Your task to perform on an android device: View the shopping cart on bestbuy. Add logitech g933 to the cart on bestbuy Image 0: 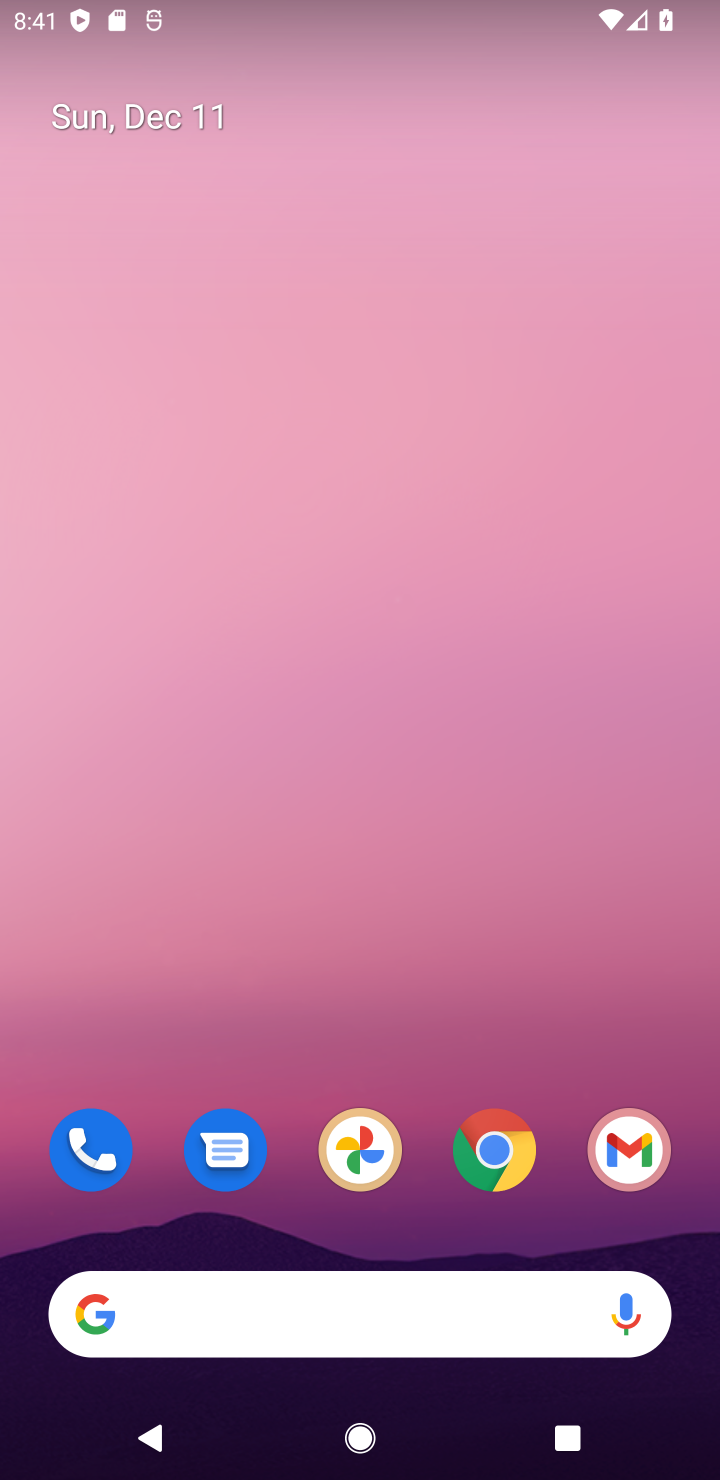
Step 0: click (495, 1149)
Your task to perform on an android device: View the shopping cart on bestbuy. Add logitech g933 to the cart on bestbuy Image 1: 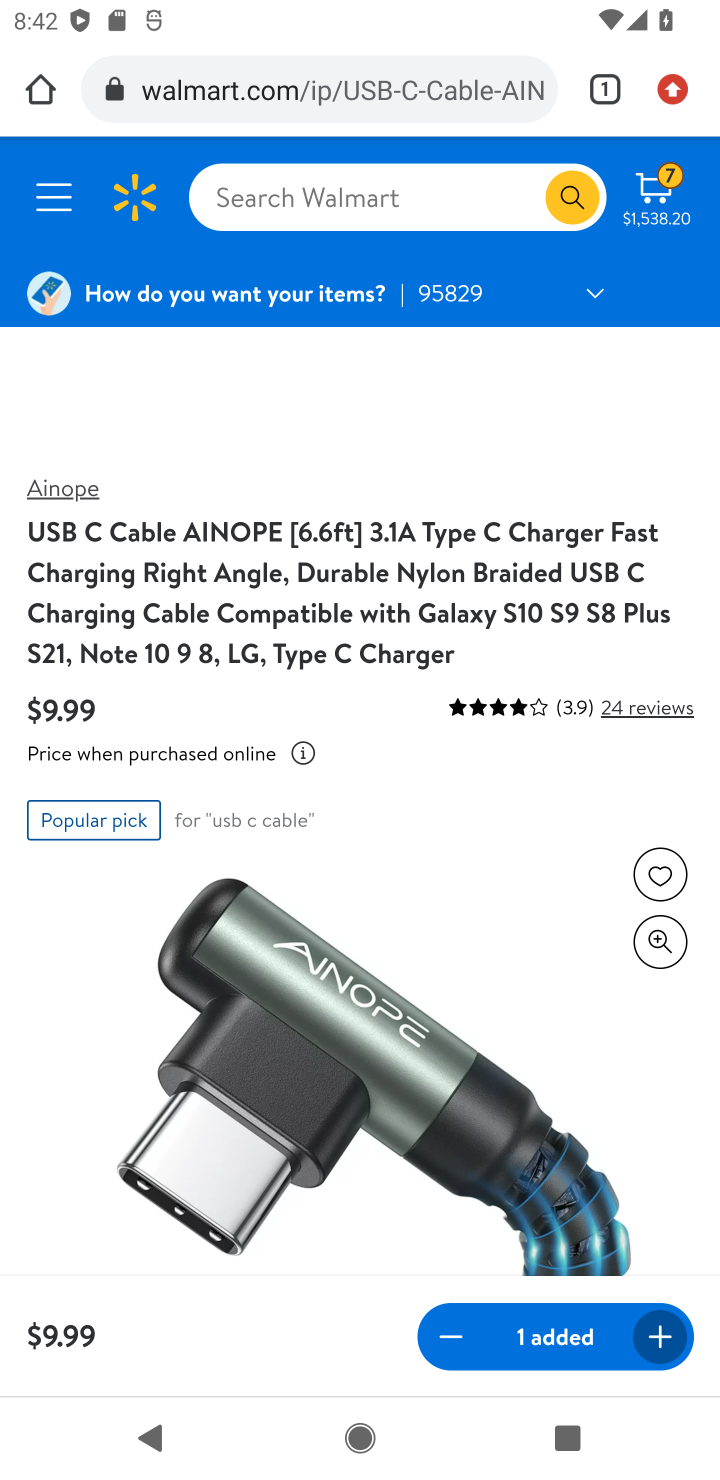
Step 1: click (426, 88)
Your task to perform on an android device: View the shopping cart on bestbuy. Add logitech g933 to the cart on bestbuy Image 2: 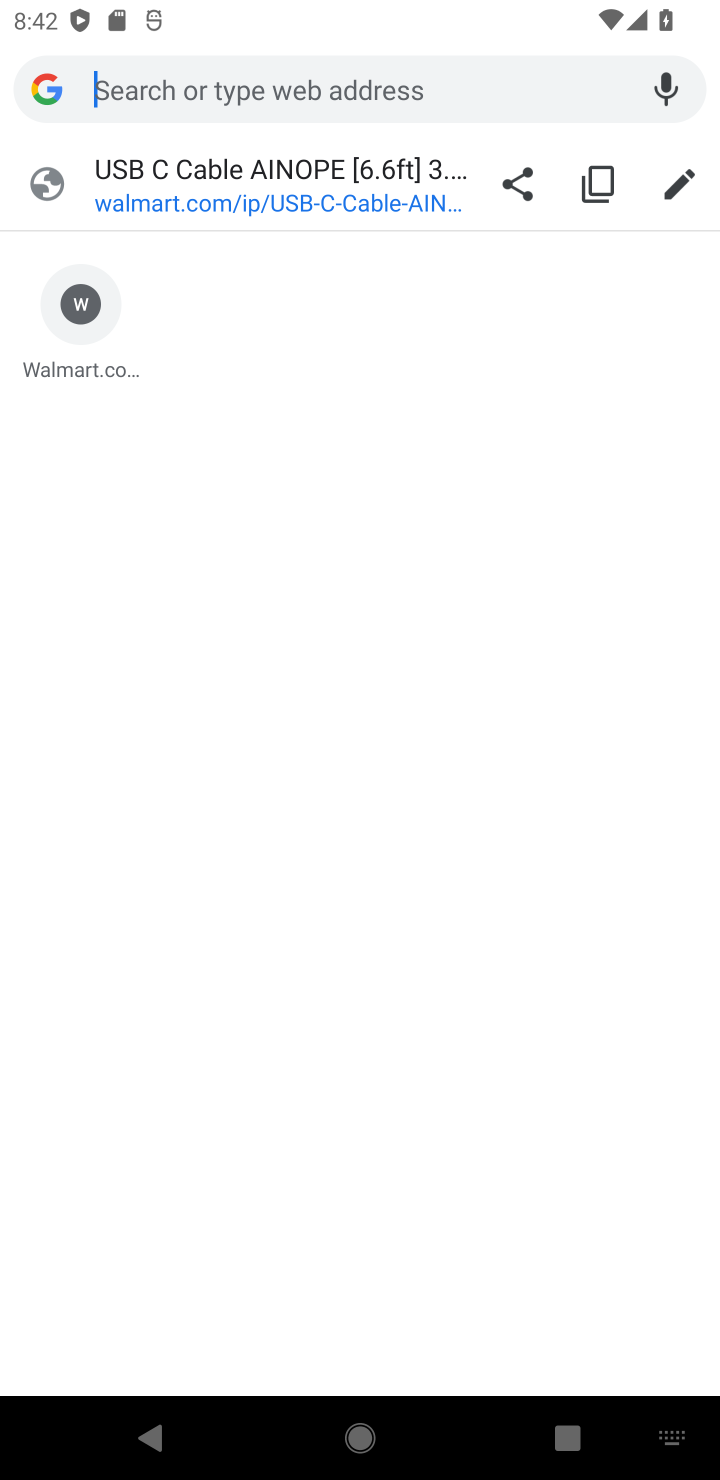
Step 2: type "bestbuy"
Your task to perform on an android device: View the shopping cart on bestbuy. Add logitech g933 to the cart on bestbuy Image 3: 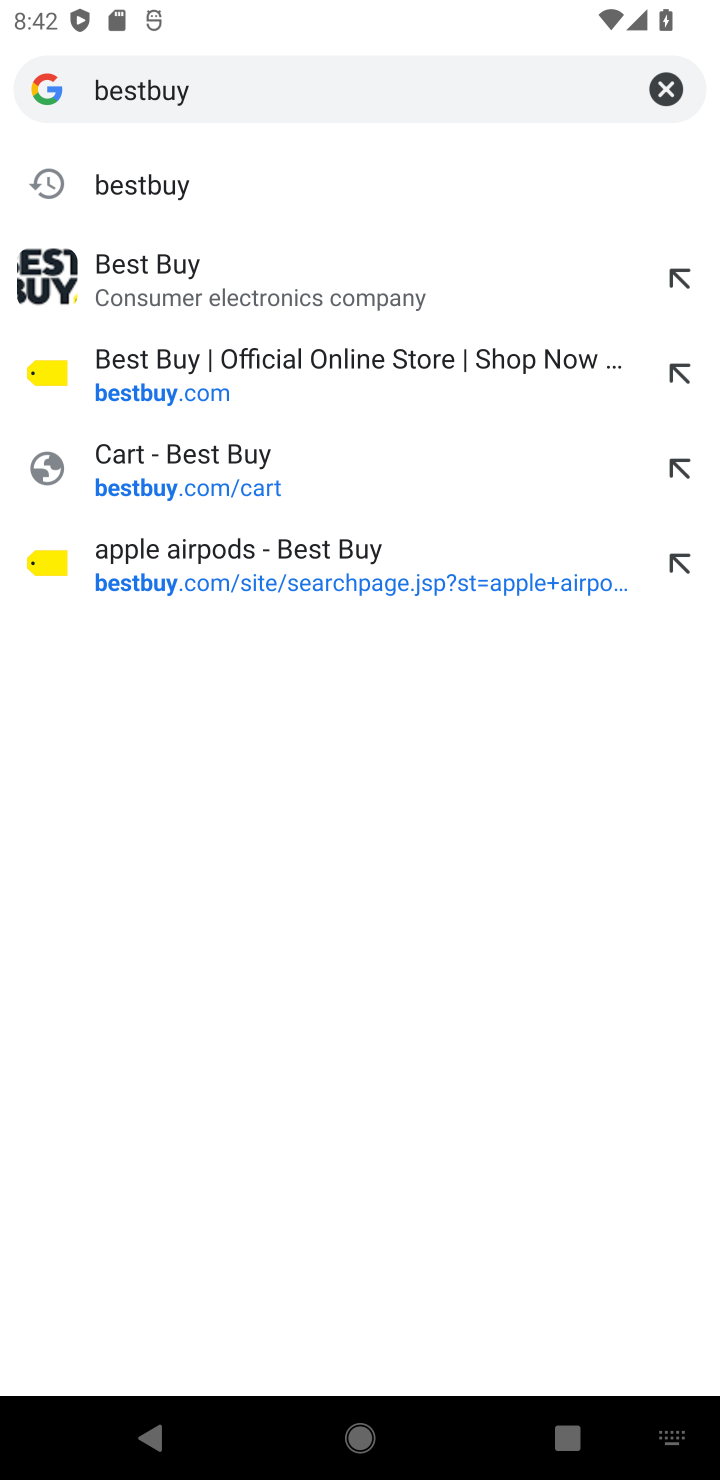
Step 3: click (163, 185)
Your task to perform on an android device: View the shopping cart on bestbuy. Add logitech g933 to the cart on bestbuy Image 4: 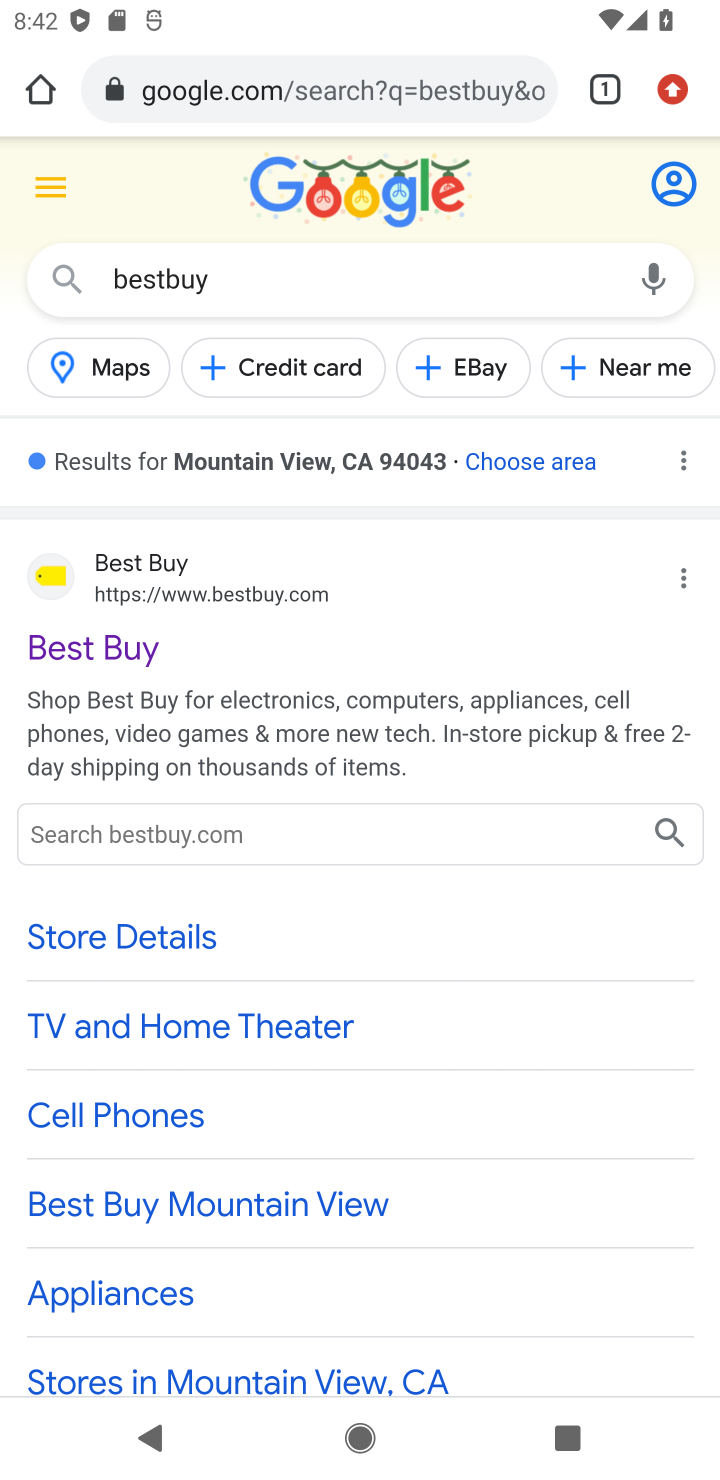
Step 4: click (126, 645)
Your task to perform on an android device: View the shopping cart on bestbuy. Add logitech g933 to the cart on bestbuy Image 5: 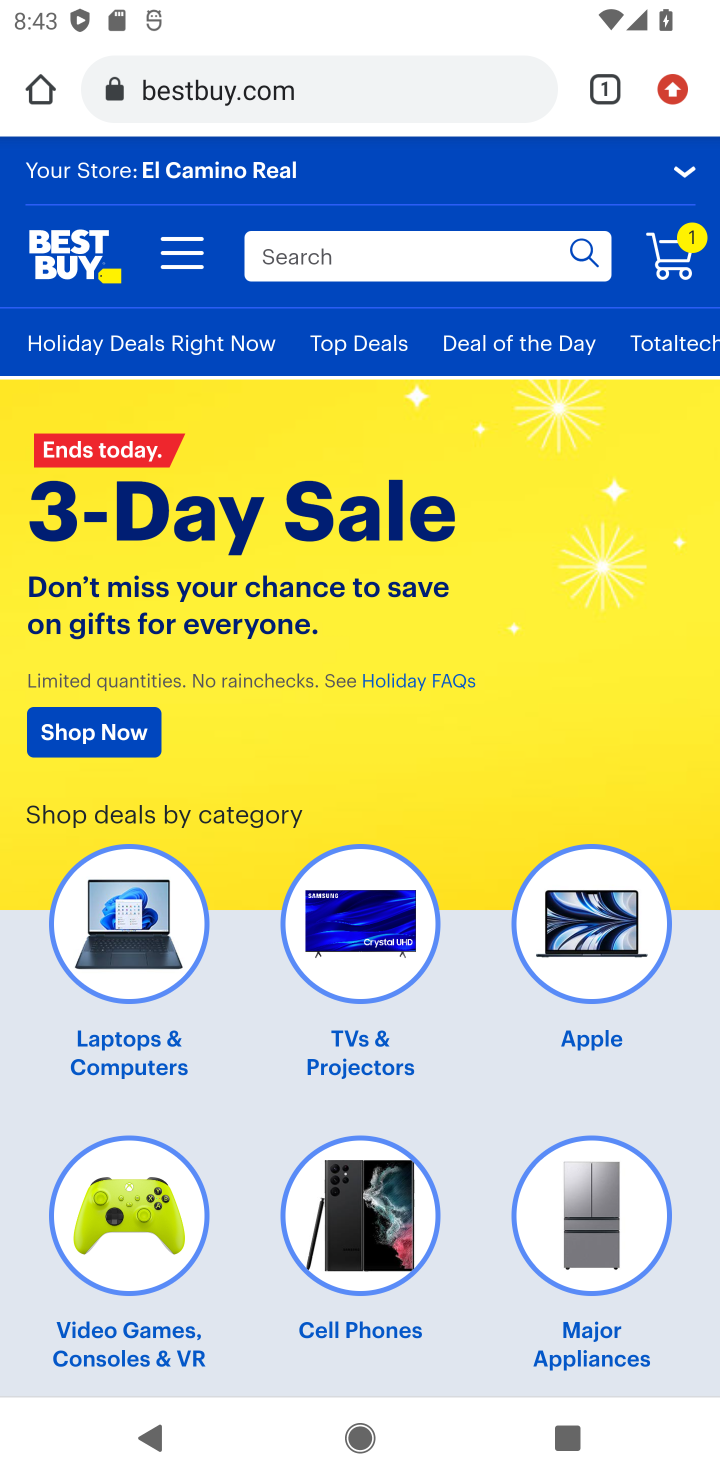
Step 5: click (672, 262)
Your task to perform on an android device: View the shopping cart on bestbuy. Add logitech g933 to the cart on bestbuy Image 6: 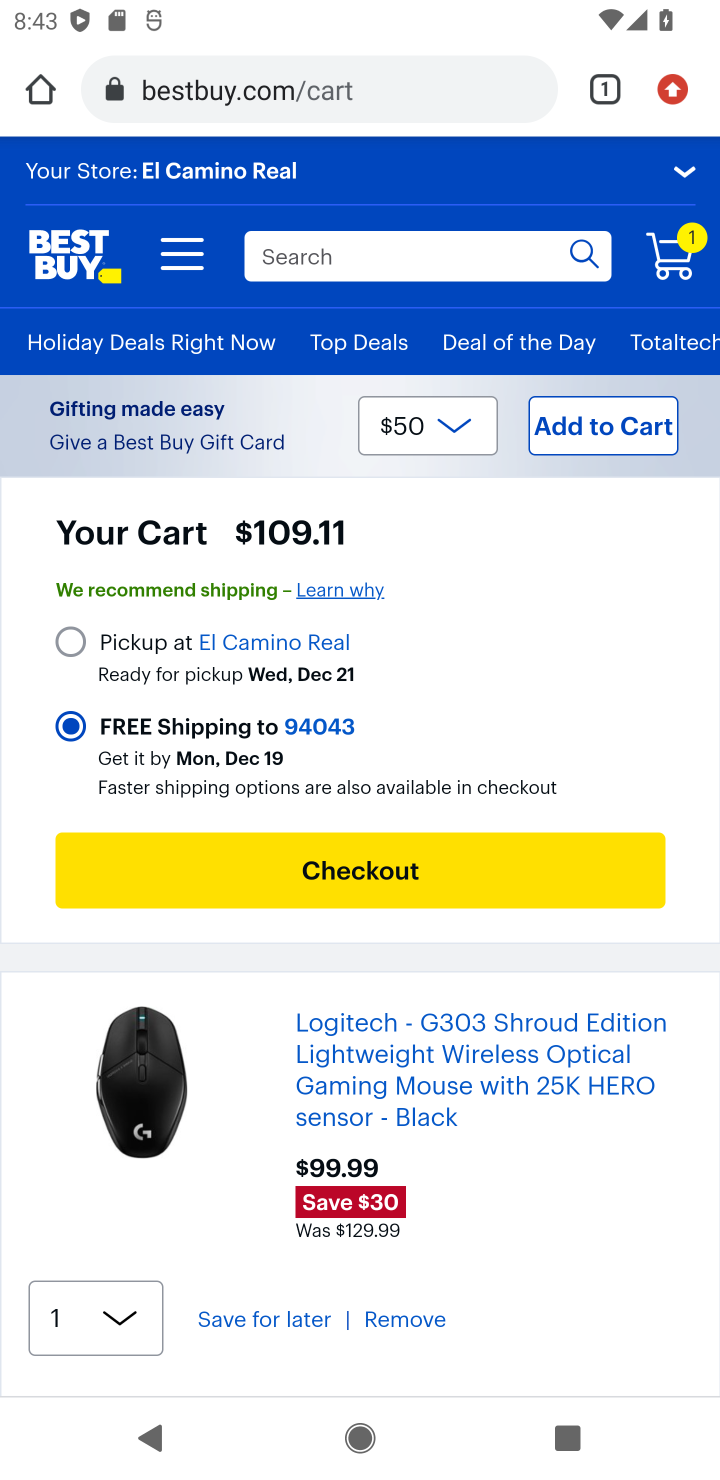
Step 6: click (444, 257)
Your task to perform on an android device: View the shopping cart on bestbuy. Add logitech g933 to the cart on bestbuy Image 7: 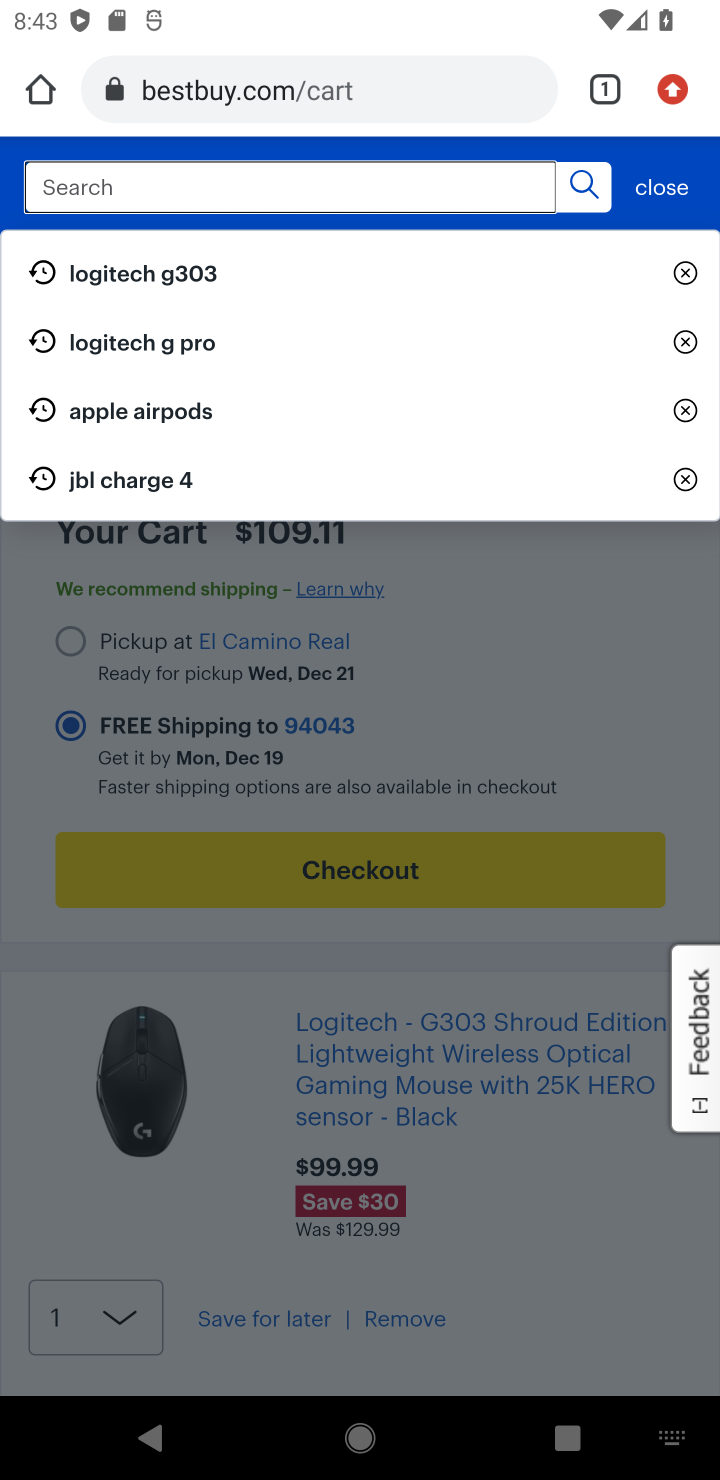
Step 7: type "logitech g933"
Your task to perform on an android device: View the shopping cart on bestbuy. Add logitech g933 to the cart on bestbuy Image 8: 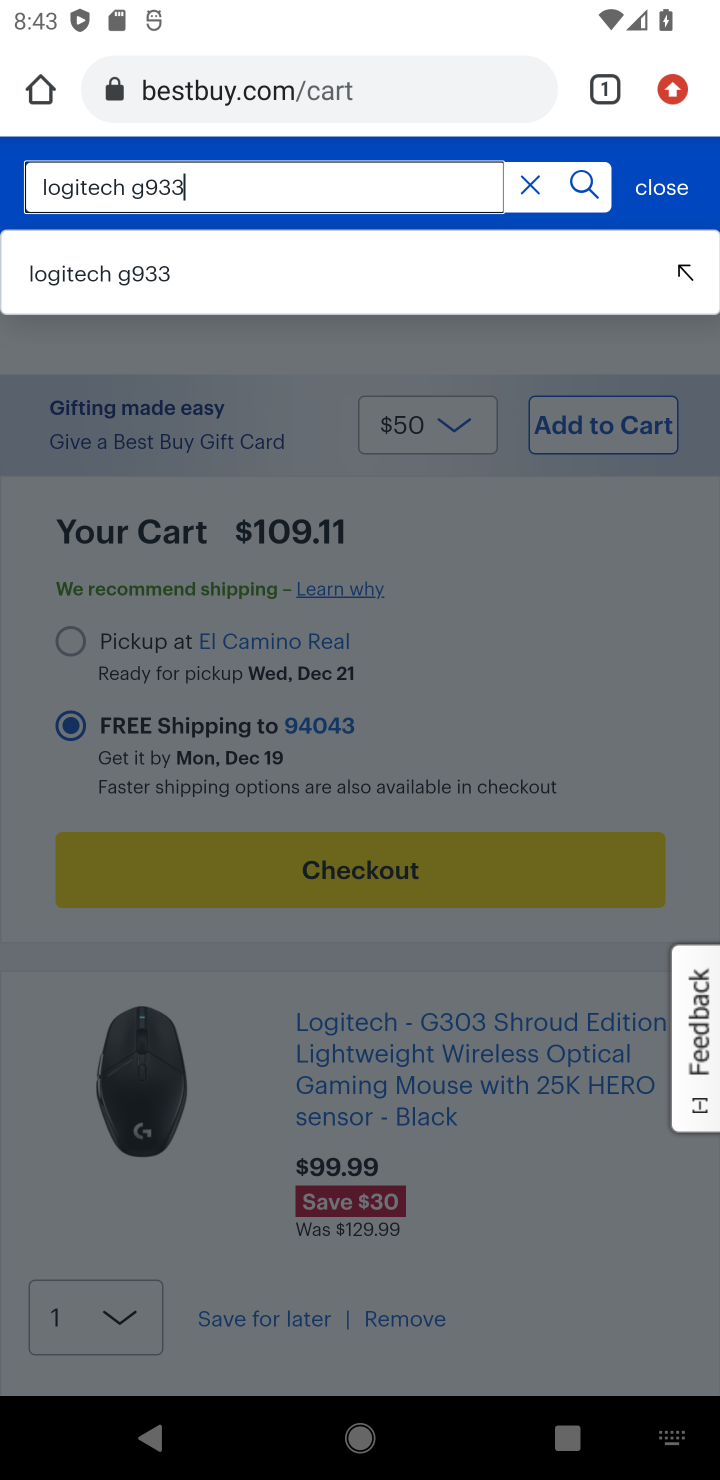
Step 8: click (106, 286)
Your task to perform on an android device: View the shopping cart on bestbuy. Add logitech g933 to the cart on bestbuy Image 9: 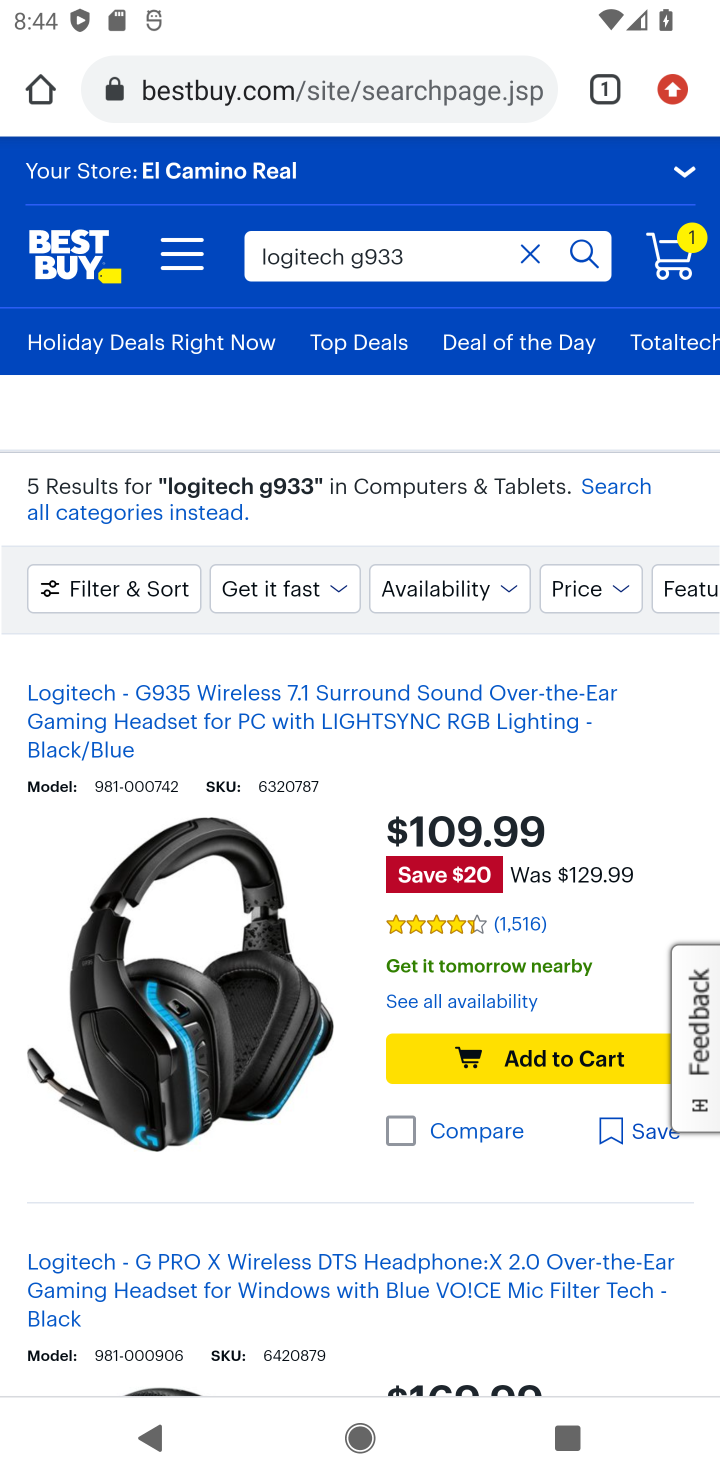
Step 9: click (530, 1053)
Your task to perform on an android device: View the shopping cart on bestbuy. Add logitech g933 to the cart on bestbuy Image 10: 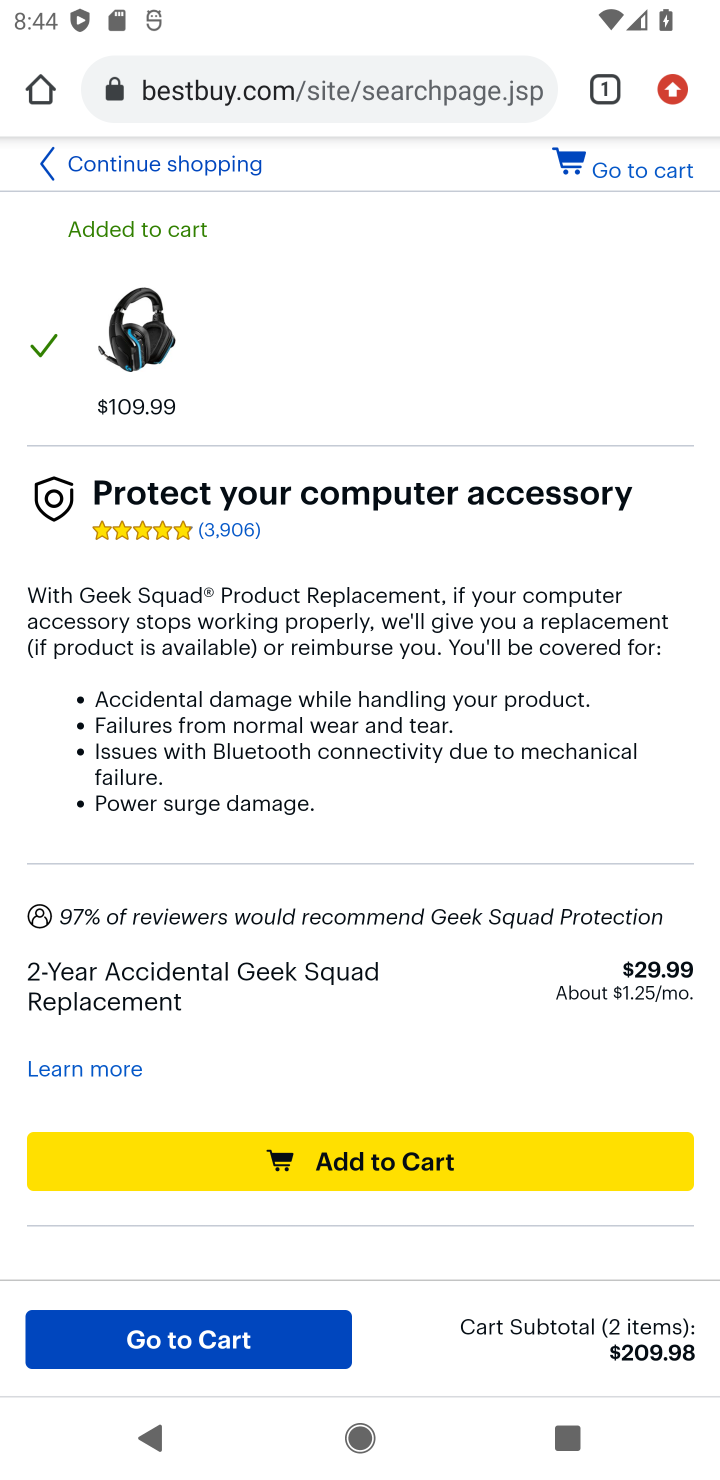
Step 10: click (187, 1332)
Your task to perform on an android device: View the shopping cart on bestbuy. Add logitech g933 to the cart on bestbuy Image 11: 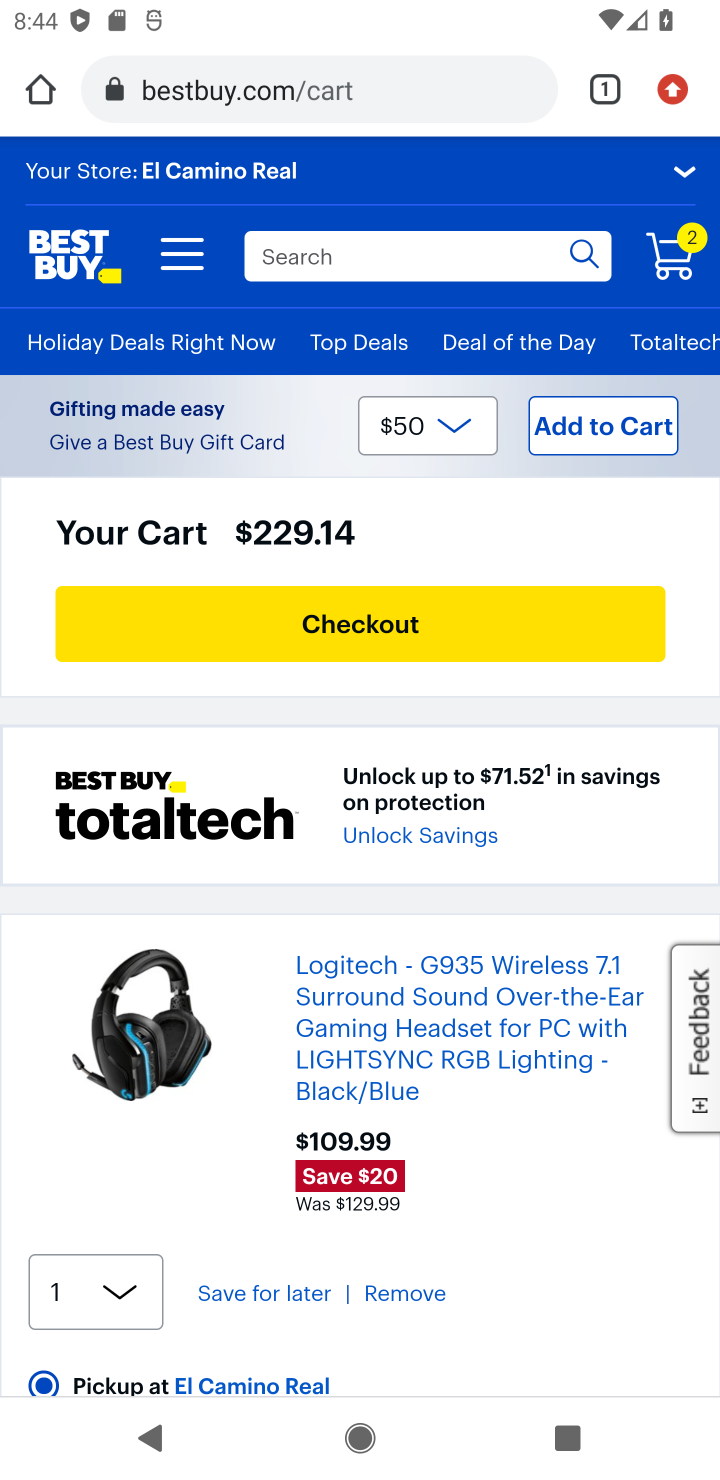
Step 11: task complete